Your task to perform on an android device: Show me recent news Image 0: 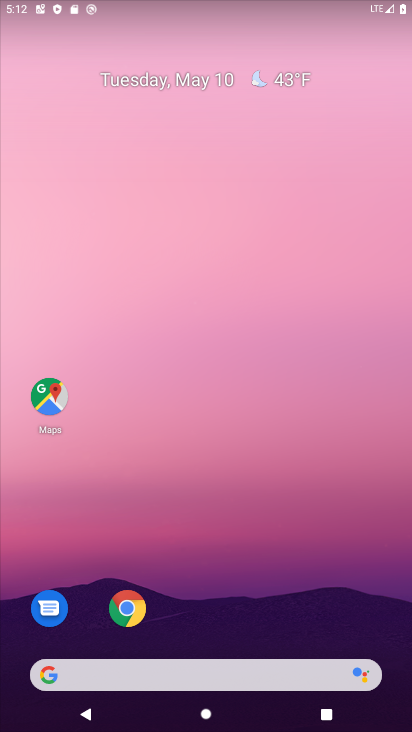
Step 0: drag from (228, 605) to (330, 11)
Your task to perform on an android device: Show me recent news Image 1: 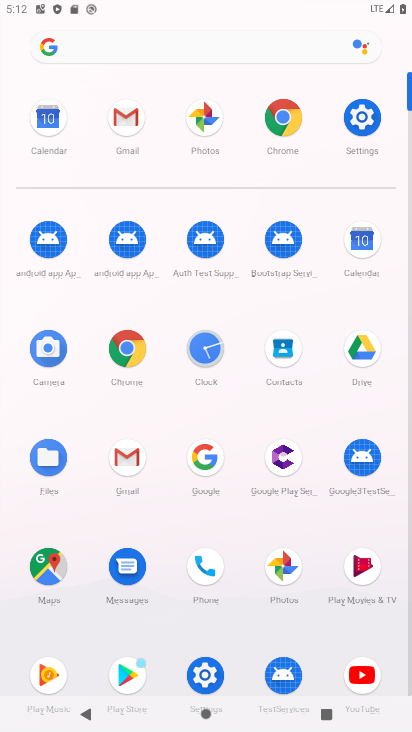
Step 1: click (92, 51)
Your task to perform on an android device: Show me recent news Image 2: 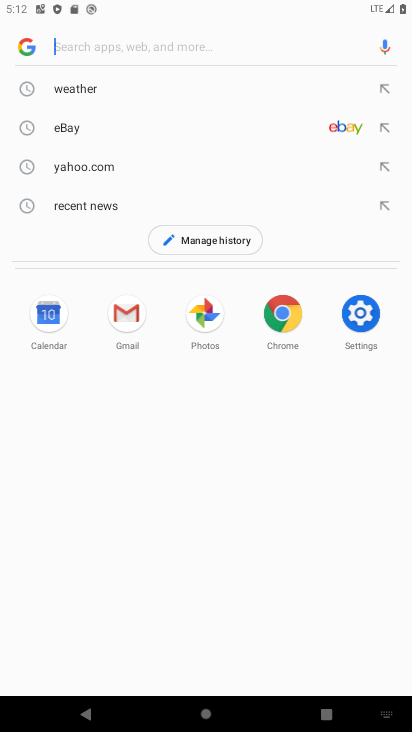
Step 2: click (105, 44)
Your task to perform on an android device: Show me recent news Image 3: 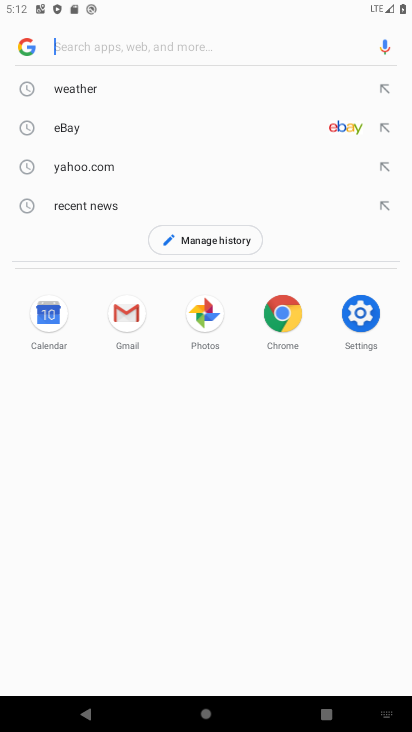
Step 3: type "recent news"
Your task to perform on an android device: Show me recent news Image 4: 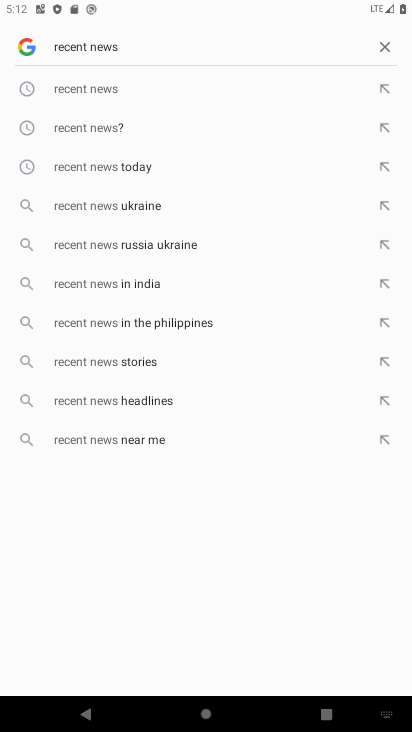
Step 4: click (90, 93)
Your task to perform on an android device: Show me recent news Image 5: 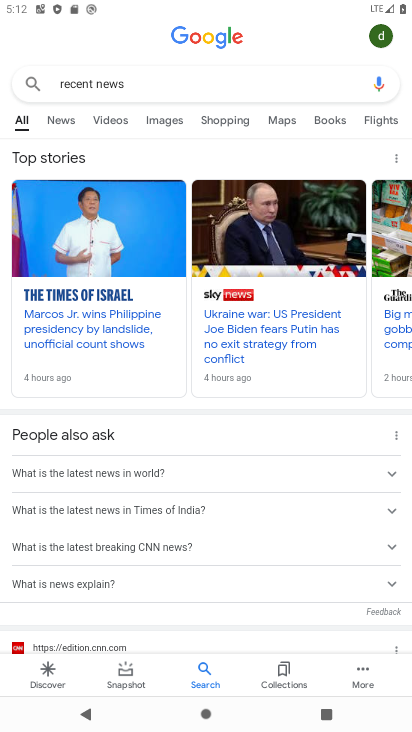
Step 5: task complete